Your task to perform on an android device: Show me productivity apps on the Play Store Image 0: 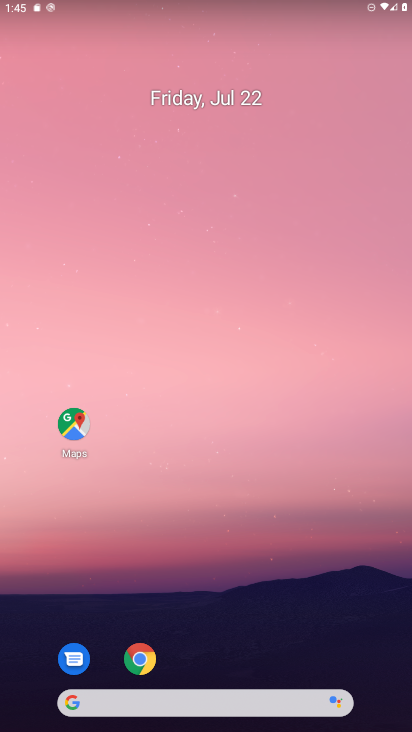
Step 0: drag from (201, 706) to (182, 214)
Your task to perform on an android device: Show me productivity apps on the Play Store Image 1: 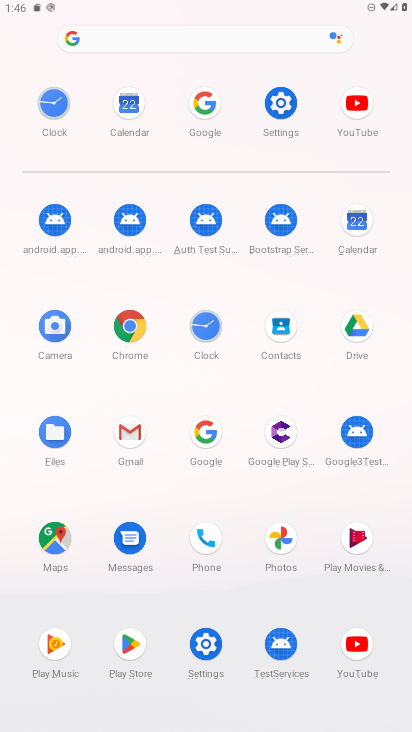
Step 1: click (130, 645)
Your task to perform on an android device: Show me productivity apps on the Play Store Image 2: 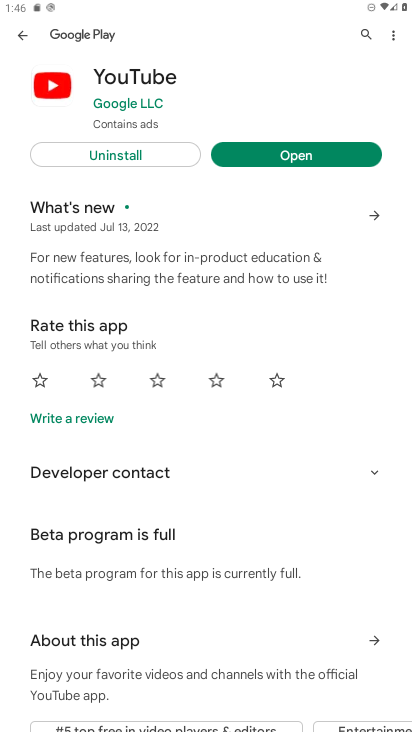
Step 2: press back button
Your task to perform on an android device: Show me productivity apps on the Play Store Image 3: 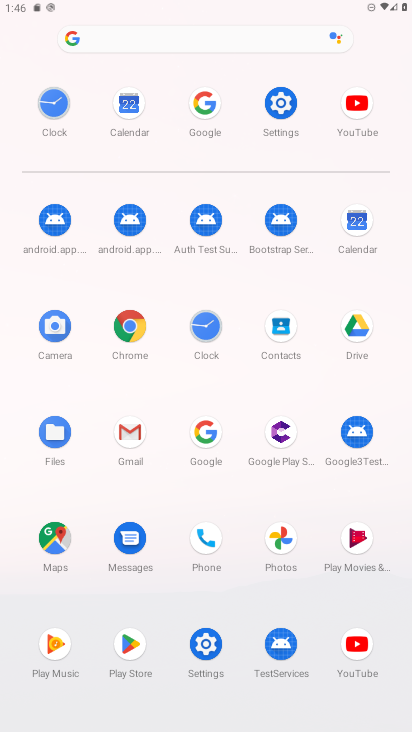
Step 3: click (130, 648)
Your task to perform on an android device: Show me productivity apps on the Play Store Image 4: 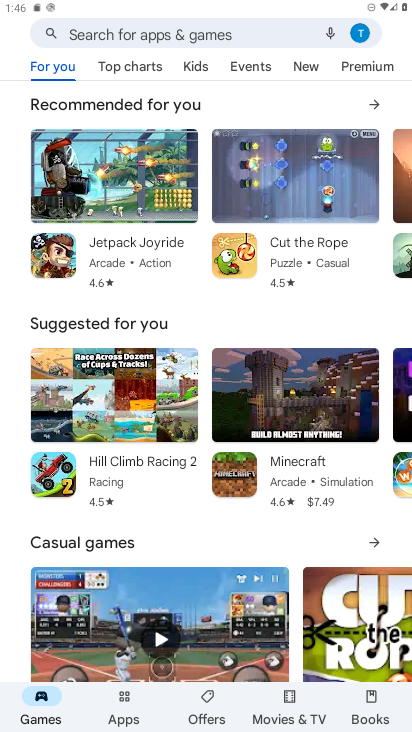
Step 4: click (126, 700)
Your task to perform on an android device: Show me productivity apps on the Play Store Image 5: 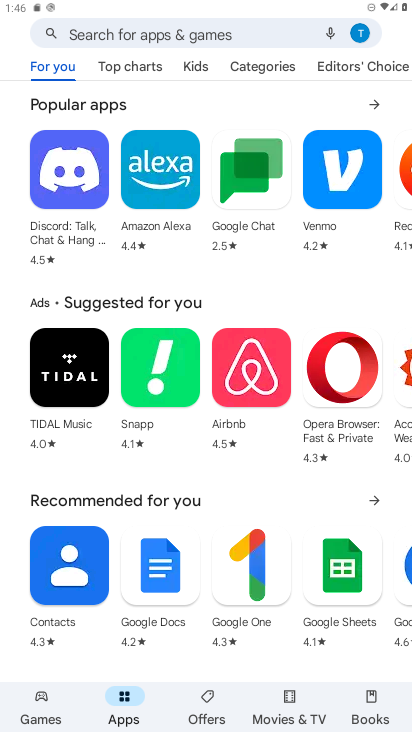
Step 5: click (276, 65)
Your task to perform on an android device: Show me productivity apps on the Play Store Image 6: 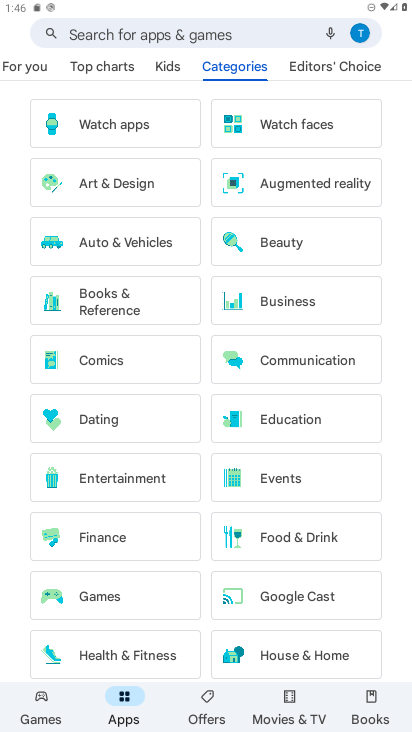
Step 6: drag from (141, 538) to (157, 444)
Your task to perform on an android device: Show me productivity apps on the Play Store Image 7: 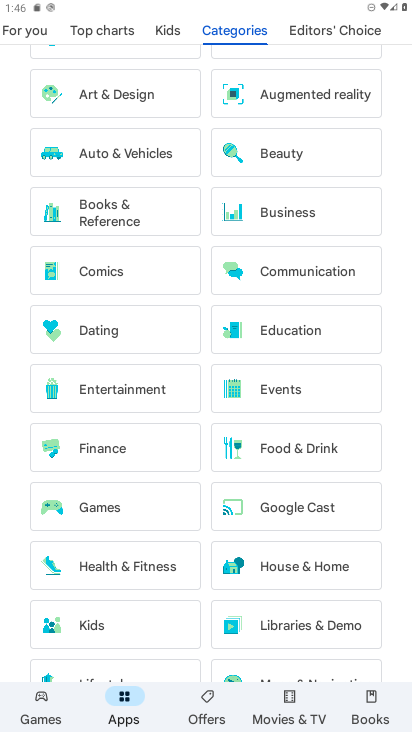
Step 7: drag from (146, 600) to (168, 511)
Your task to perform on an android device: Show me productivity apps on the Play Store Image 8: 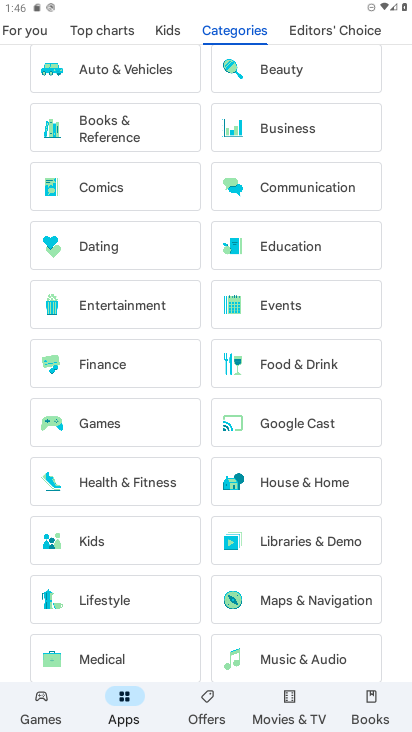
Step 8: drag from (145, 605) to (176, 529)
Your task to perform on an android device: Show me productivity apps on the Play Store Image 9: 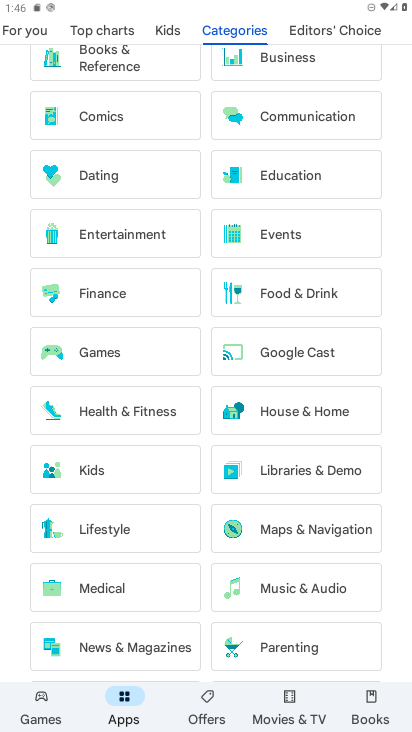
Step 9: drag from (177, 609) to (179, 518)
Your task to perform on an android device: Show me productivity apps on the Play Store Image 10: 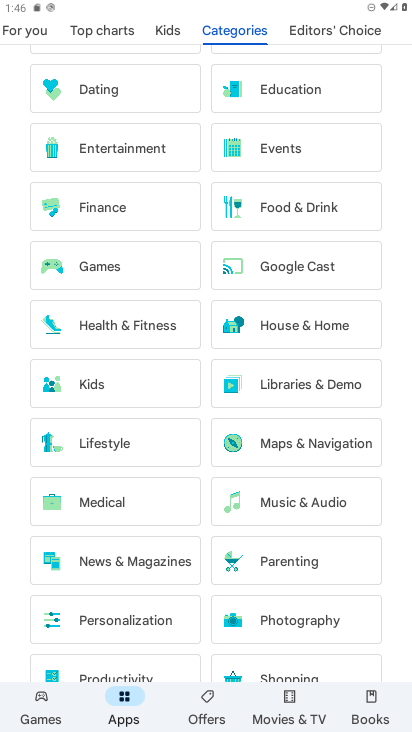
Step 10: drag from (145, 624) to (187, 507)
Your task to perform on an android device: Show me productivity apps on the Play Store Image 11: 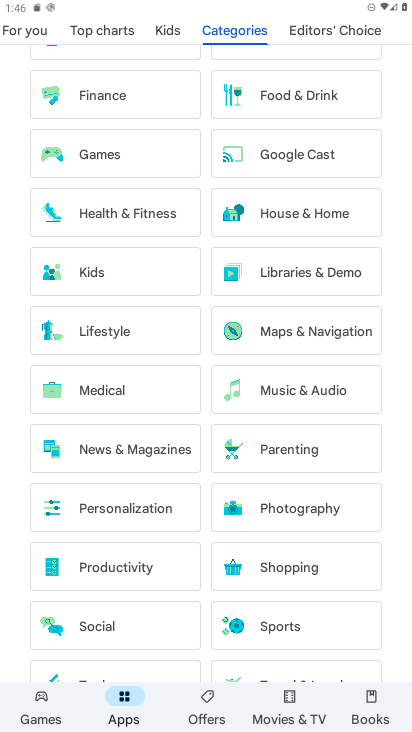
Step 11: click (119, 564)
Your task to perform on an android device: Show me productivity apps on the Play Store Image 12: 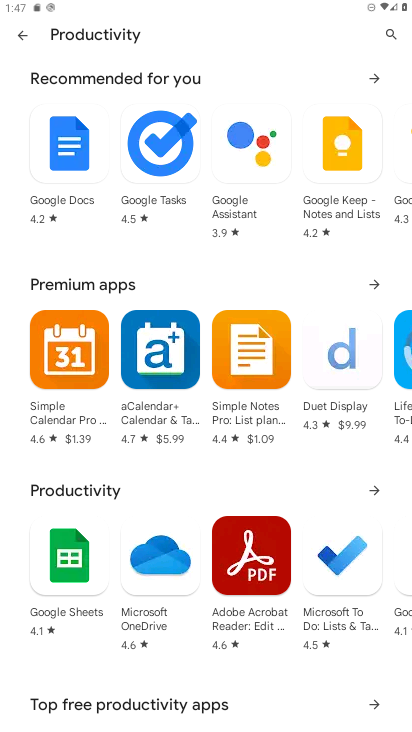
Step 12: task complete